Your task to perform on an android device: Turn on the flashlight Image 0: 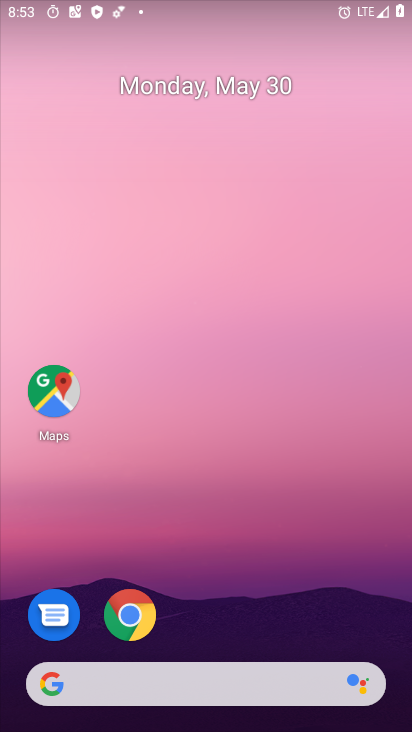
Step 0: drag from (306, 492) to (295, 90)
Your task to perform on an android device: Turn on the flashlight Image 1: 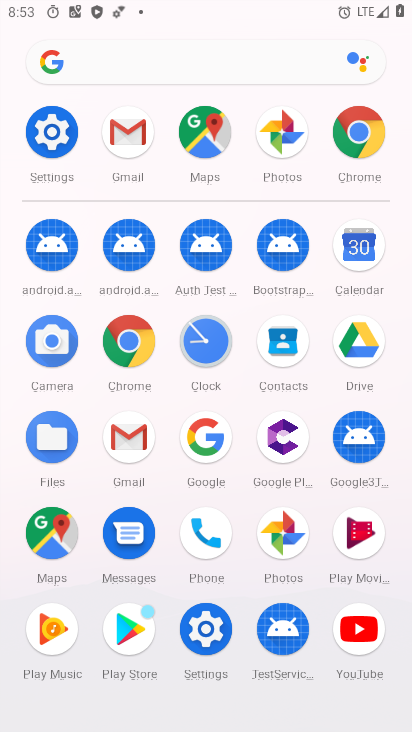
Step 1: click (42, 122)
Your task to perform on an android device: Turn on the flashlight Image 2: 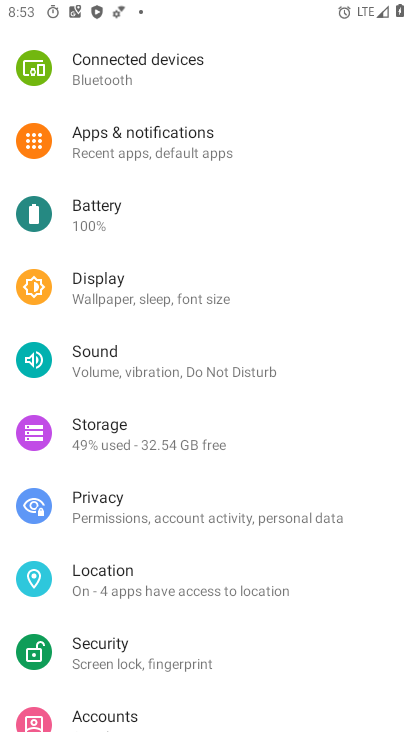
Step 2: task complete